Your task to perform on an android device: snooze an email in the gmail app Image 0: 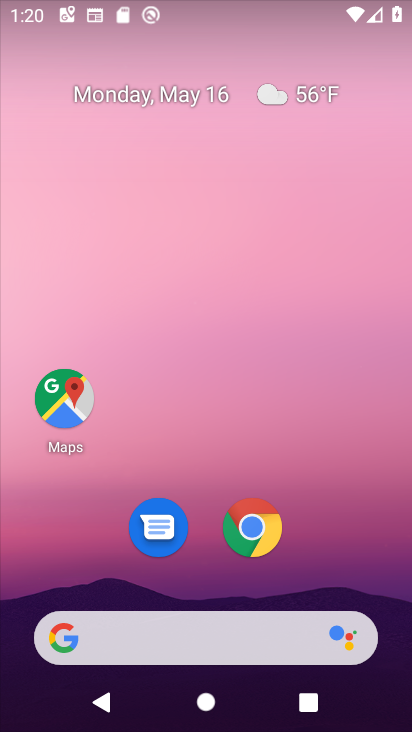
Step 0: drag from (196, 627) to (61, 224)
Your task to perform on an android device: snooze an email in the gmail app Image 1: 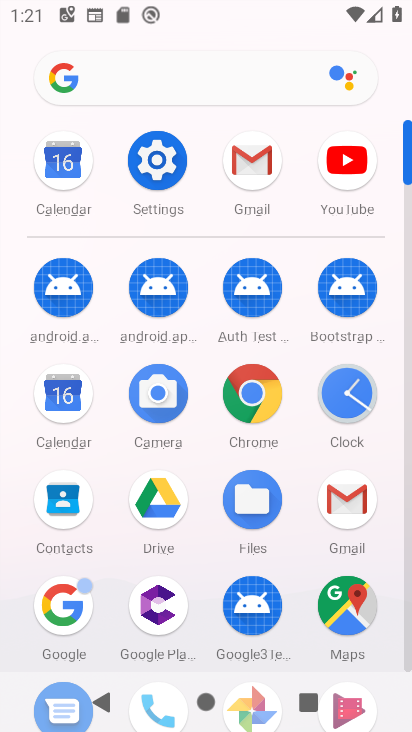
Step 1: click (330, 507)
Your task to perform on an android device: snooze an email in the gmail app Image 2: 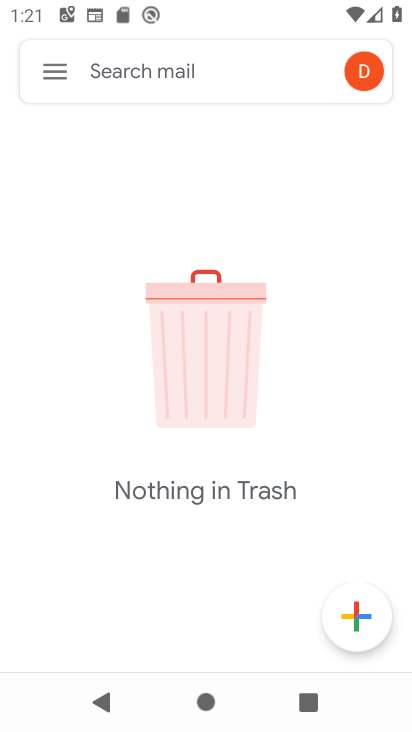
Step 2: click (62, 72)
Your task to perform on an android device: snooze an email in the gmail app Image 3: 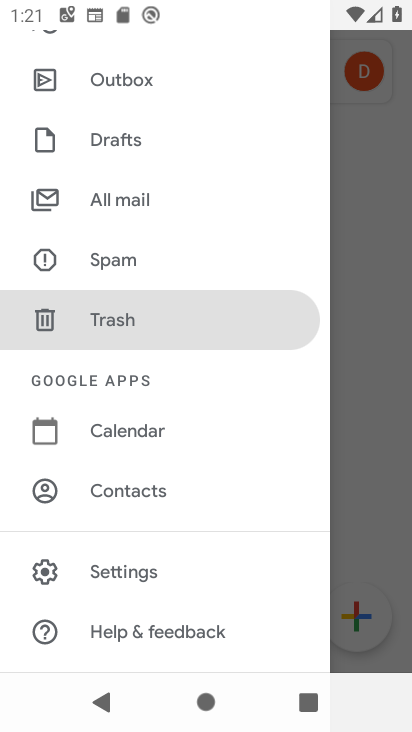
Step 3: click (104, 193)
Your task to perform on an android device: snooze an email in the gmail app Image 4: 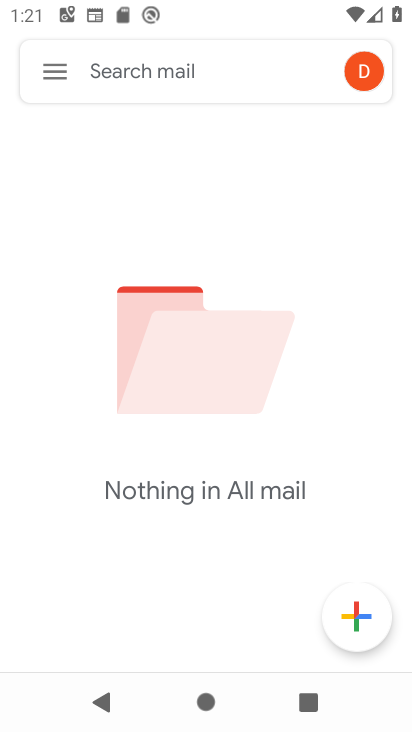
Step 4: task complete